Your task to perform on an android device: check battery use Image 0: 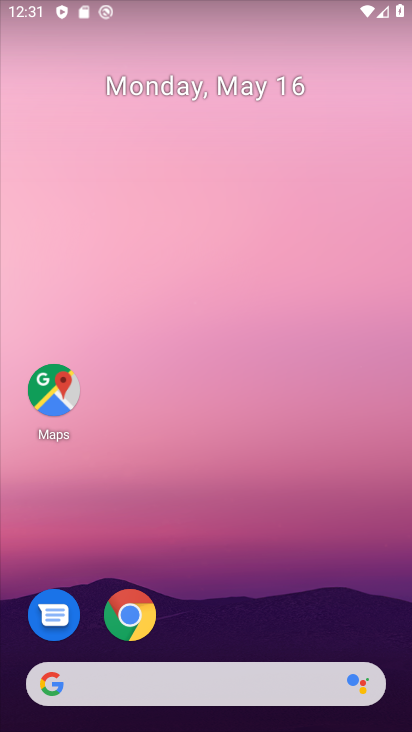
Step 0: drag from (281, 581) to (320, 153)
Your task to perform on an android device: check battery use Image 1: 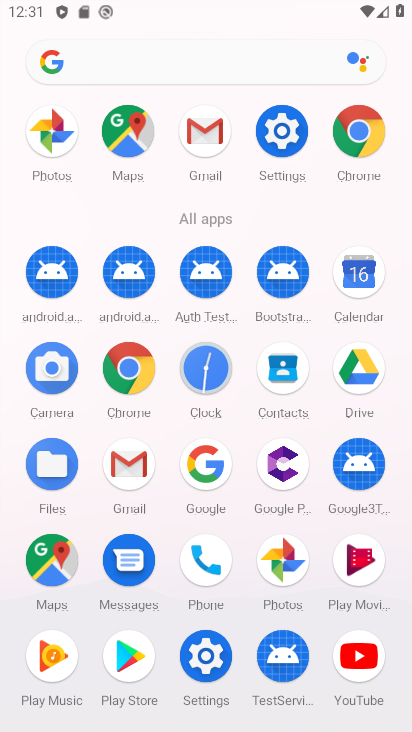
Step 1: click (291, 133)
Your task to perform on an android device: check battery use Image 2: 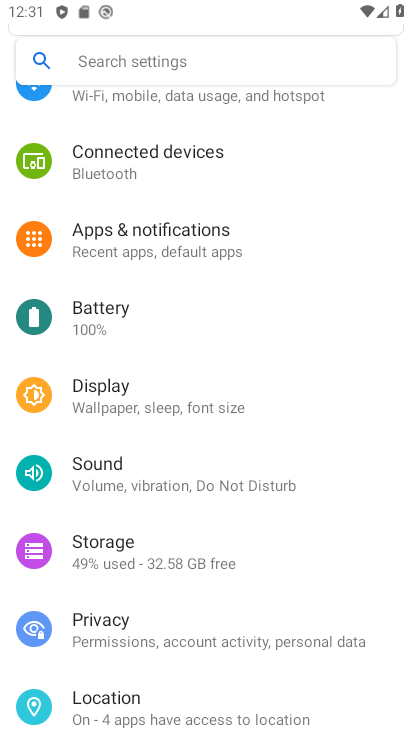
Step 2: click (141, 319)
Your task to perform on an android device: check battery use Image 3: 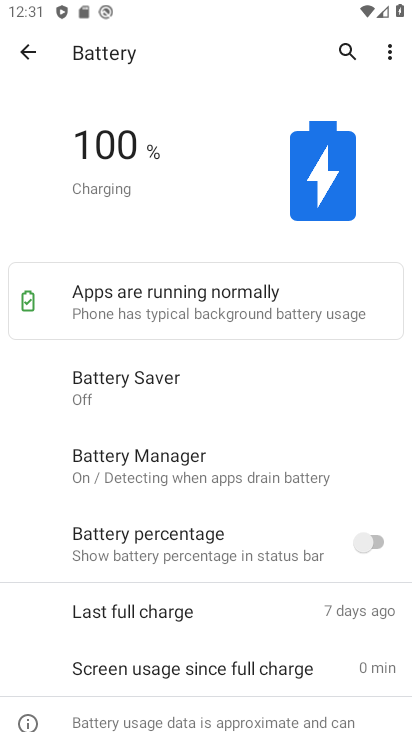
Step 3: click (396, 45)
Your task to perform on an android device: check battery use Image 4: 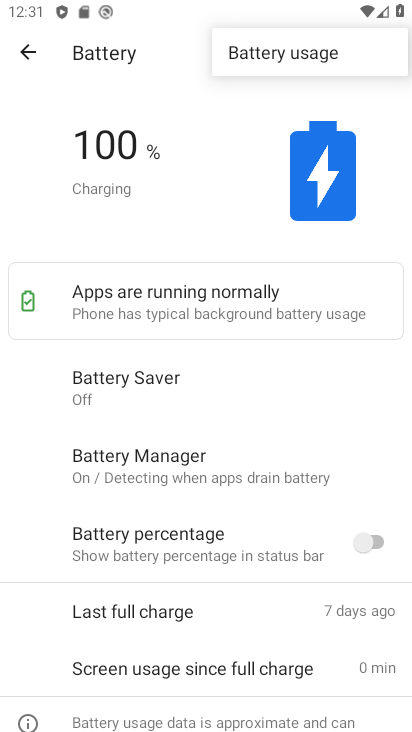
Step 4: click (332, 50)
Your task to perform on an android device: check battery use Image 5: 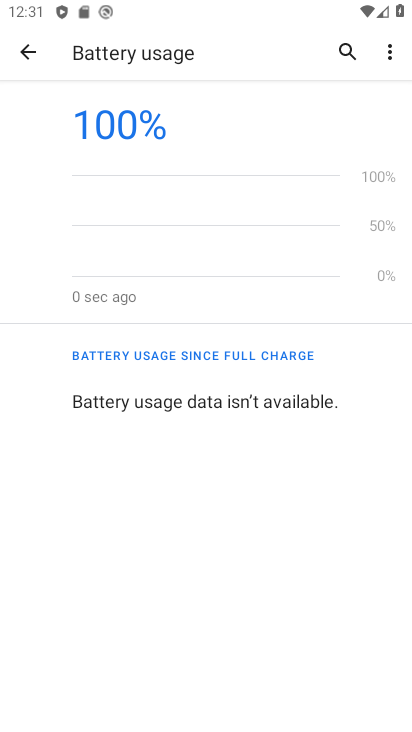
Step 5: task complete